Your task to perform on an android device: Search for vegetarian restaurants on Maps Image 0: 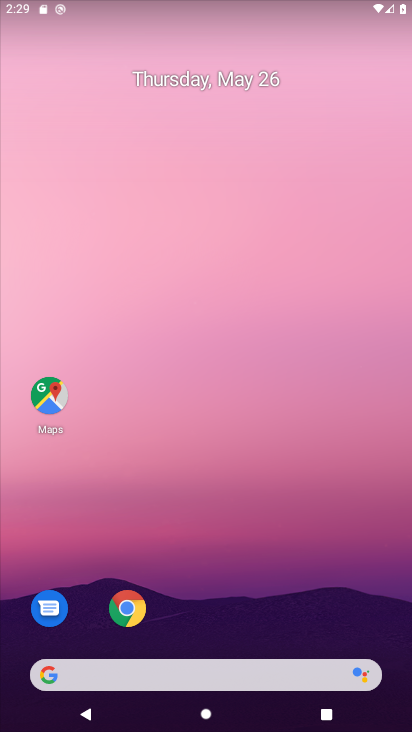
Step 0: click (52, 400)
Your task to perform on an android device: Search for vegetarian restaurants on Maps Image 1: 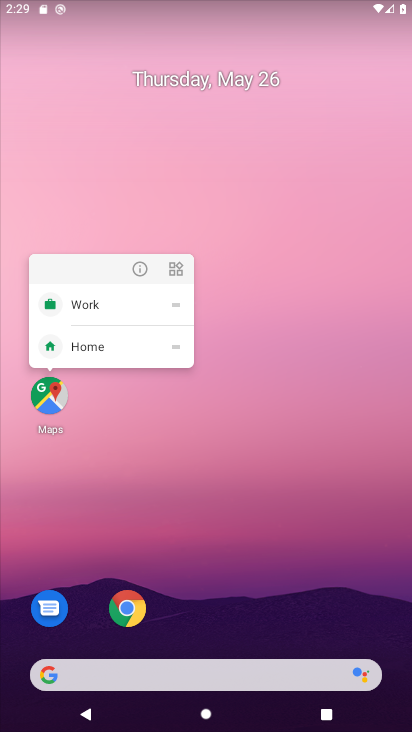
Step 1: click (52, 400)
Your task to perform on an android device: Search for vegetarian restaurants on Maps Image 2: 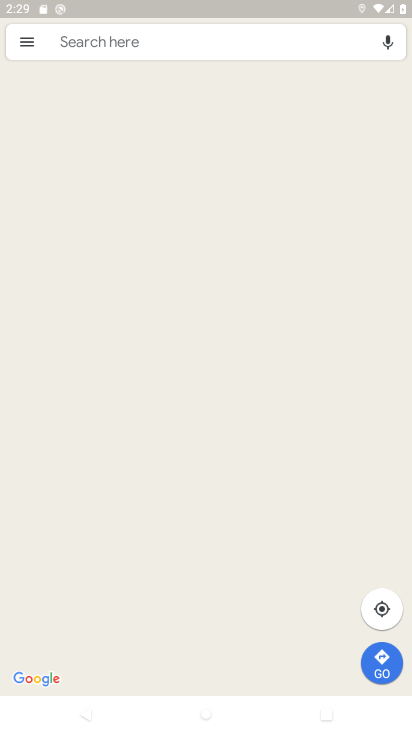
Step 2: click (160, 46)
Your task to perform on an android device: Search for vegetarian restaurants on Maps Image 3: 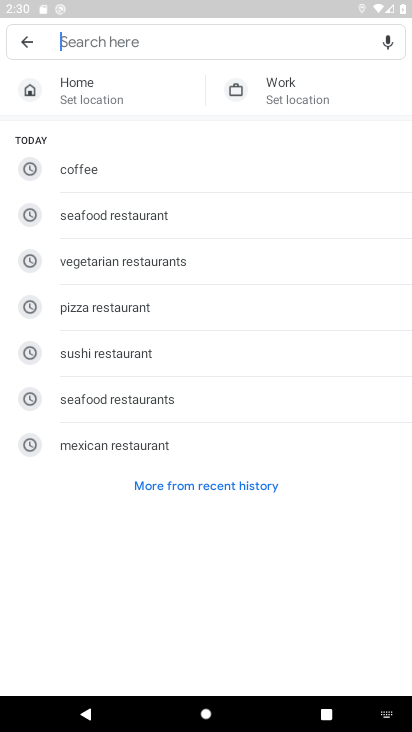
Step 3: type "vegetarian restaurants"
Your task to perform on an android device: Search for vegetarian restaurants on Maps Image 4: 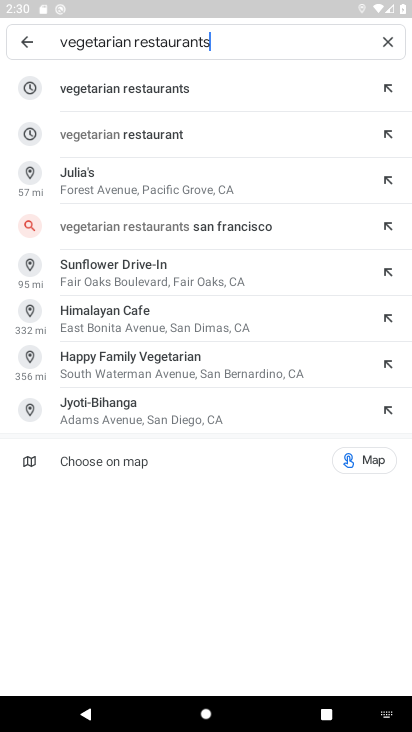
Step 4: click (218, 85)
Your task to perform on an android device: Search for vegetarian restaurants on Maps Image 5: 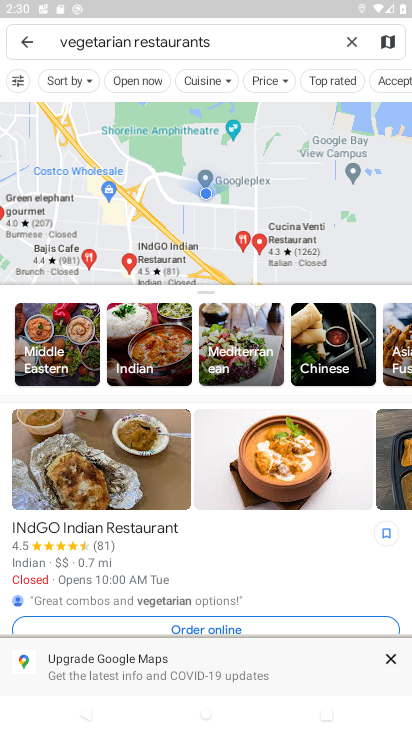
Step 5: task complete